Your task to perform on an android device: Is it going to rain today? Image 0: 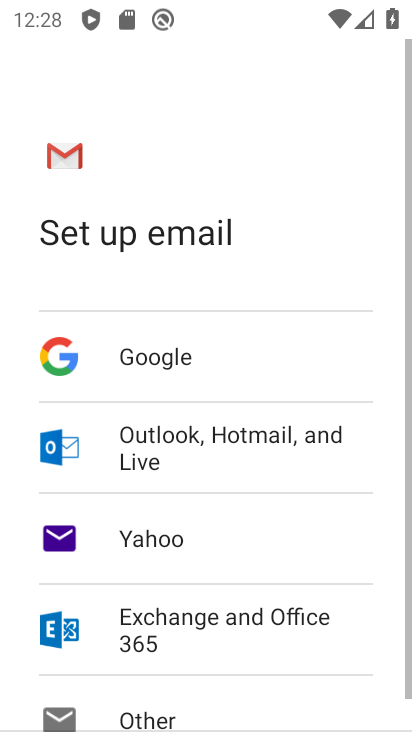
Step 0: press home button
Your task to perform on an android device: Is it going to rain today? Image 1: 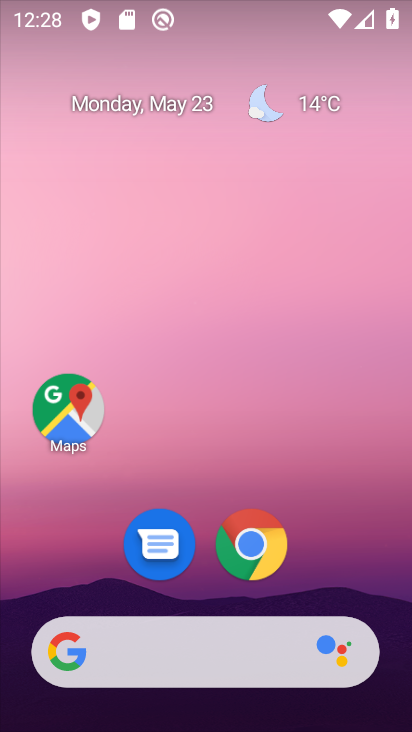
Step 1: click (324, 98)
Your task to perform on an android device: Is it going to rain today? Image 2: 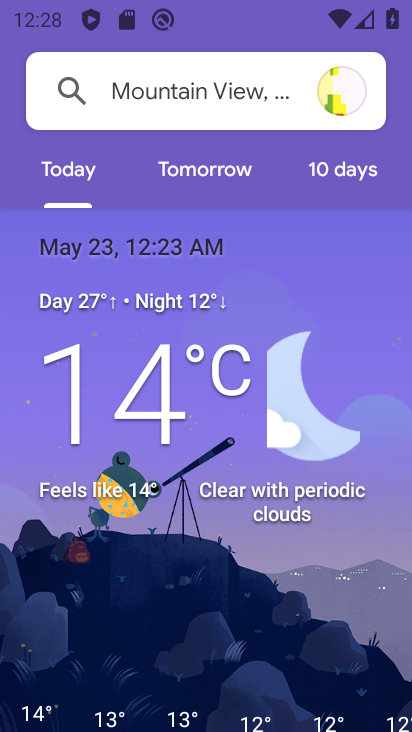
Step 2: task complete